Your task to perform on an android device: toggle priority inbox in the gmail app Image 0: 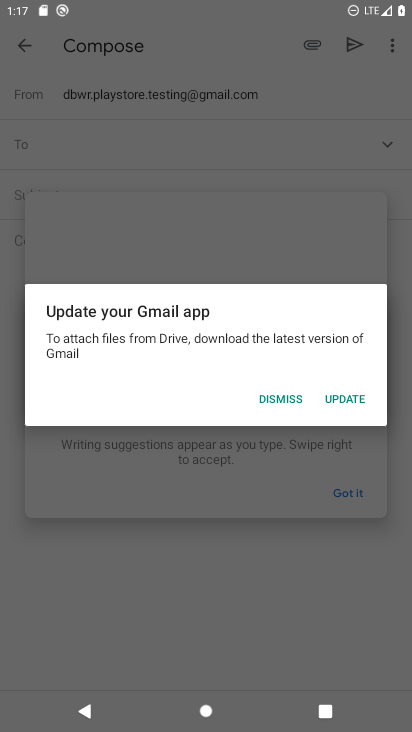
Step 0: press home button
Your task to perform on an android device: toggle priority inbox in the gmail app Image 1: 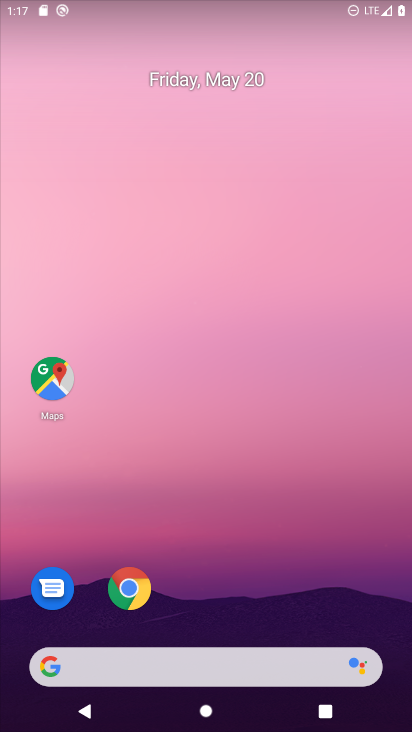
Step 1: drag from (395, 628) to (351, 153)
Your task to perform on an android device: toggle priority inbox in the gmail app Image 2: 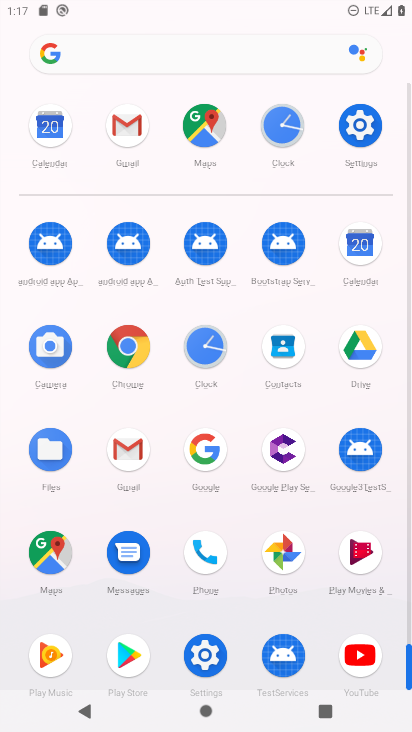
Step 2: click (127, 451)
Your task to perform on an android device: toggle priority inbox in the gmail app Image 3: 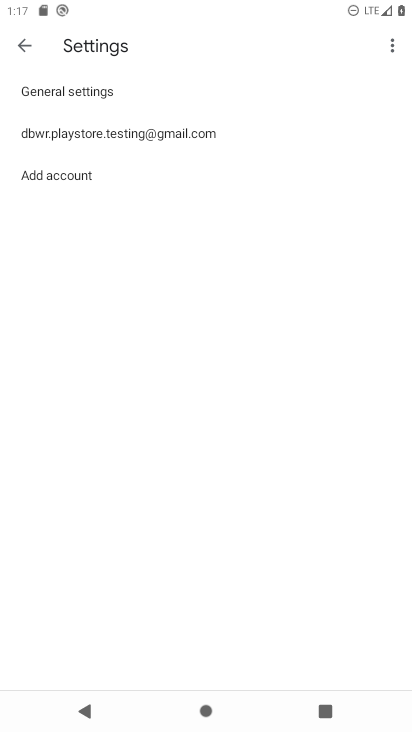
Step 3: click (139, 132)
Your task to perform on an android device: toggle priority inbox in the gmail app Image 4: 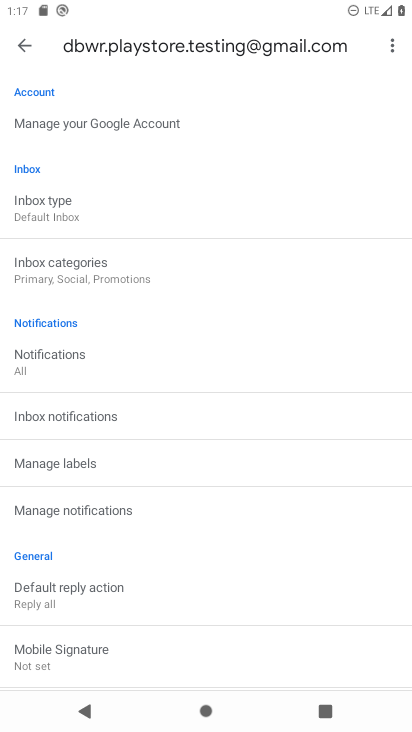
Step 4: click (45, 210)
Your task to perform on an android device: toggle priority inbox in the gmail app Image 5: 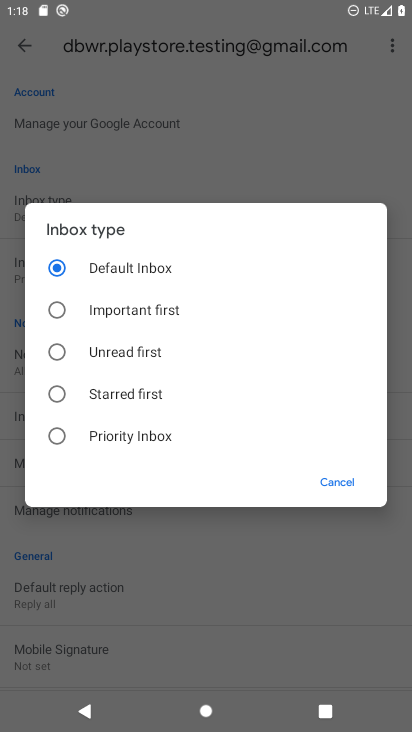
Step 5: click (59, 432)
Your task to perform on an android device: toggle priority inbox in the gmail app Image 6: 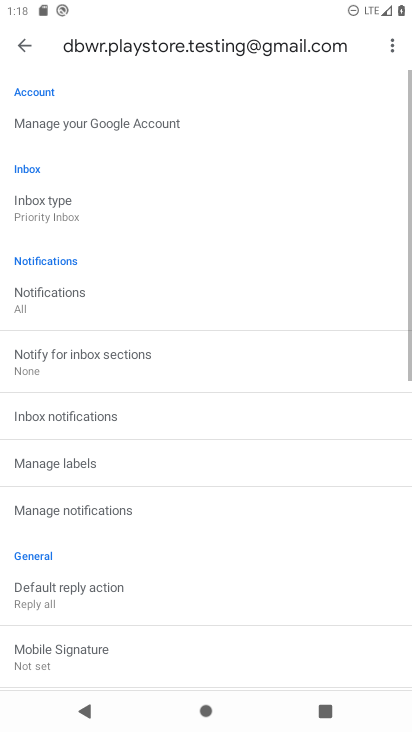
Step 6: task complete